Your task to perform on an android device: Search for pizza restaurants on Maps Image 0: 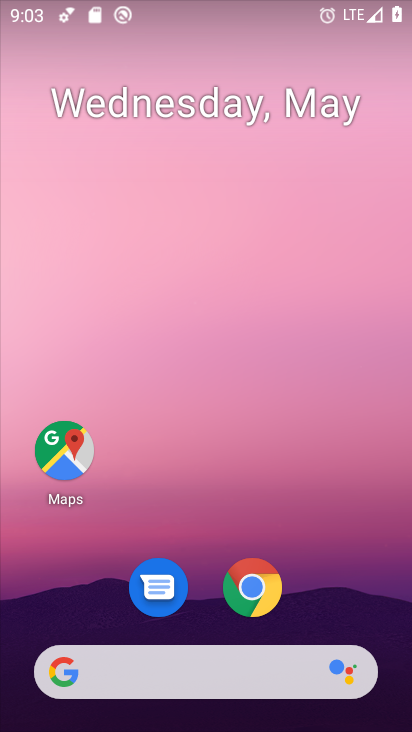
Step 0: click (91, 466)
Your task to perform on an android device: Search for pizza restaurants on Maps Image 1: 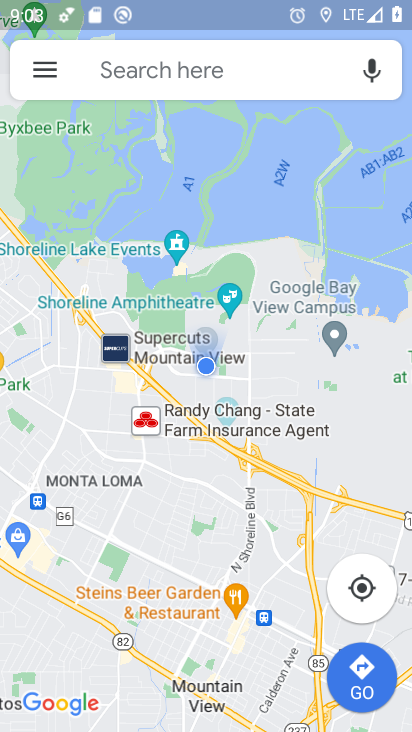
Step 1: click (191, 76)
Your task to perform on an android device: Search for pizza restaurants on Maps Image 2: 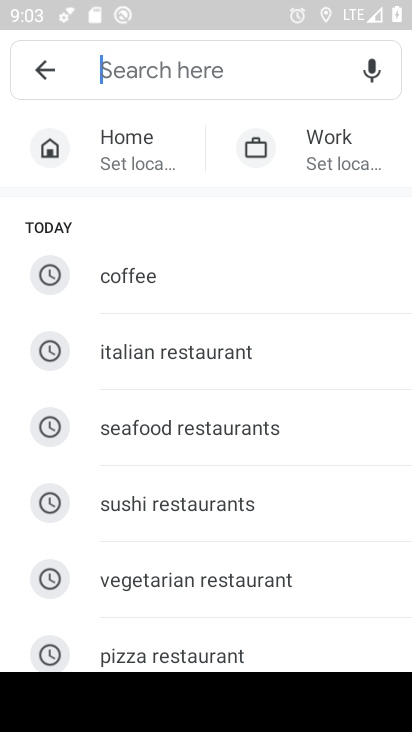
Step 2: type "Pizza restaurant"
Your task to perform on an android device: Search for pizza restaurants on Maps Image 3: 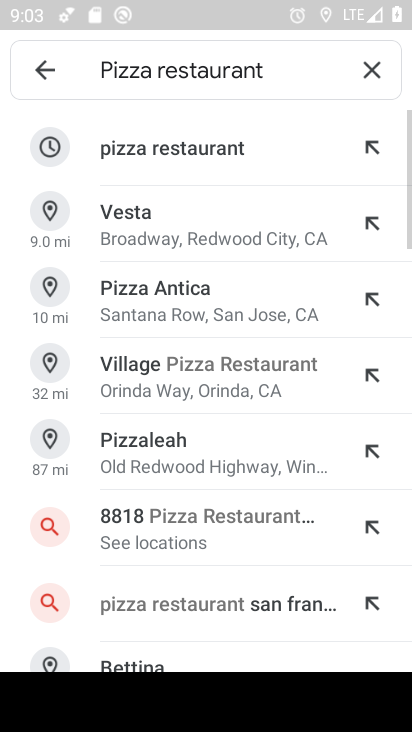
Step 3: click (229, 159)
Your task to perform on an android device: Search for pizza restaurants on Maps Image 4: 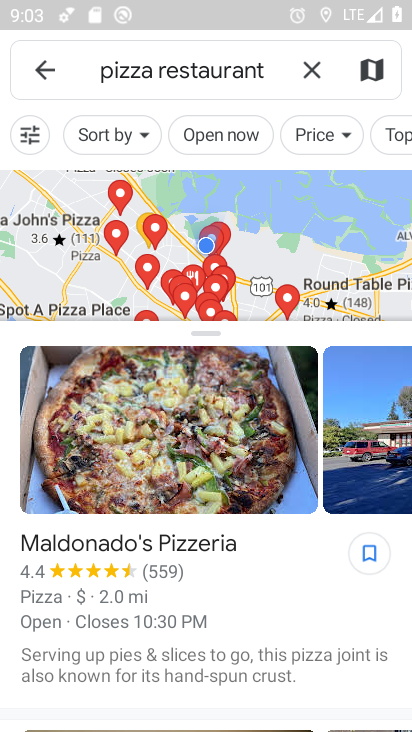
Step 4: task complete